Your task to perform on an android device: Open Chrome and go to settings Image 0: 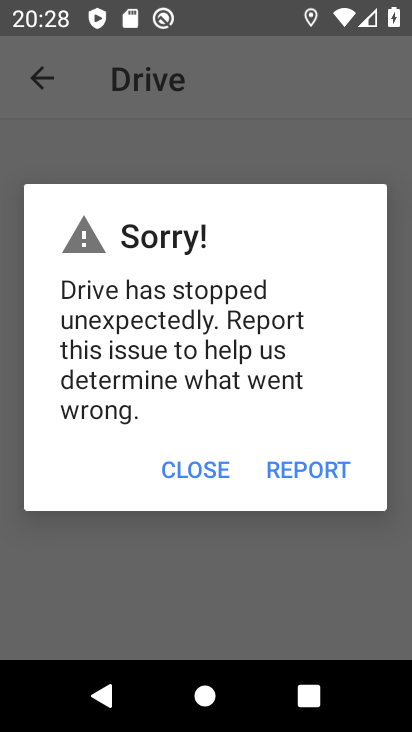
Step 0: press home button
Your task to perform on an android device: Open Chrome and go to settings Image 1: 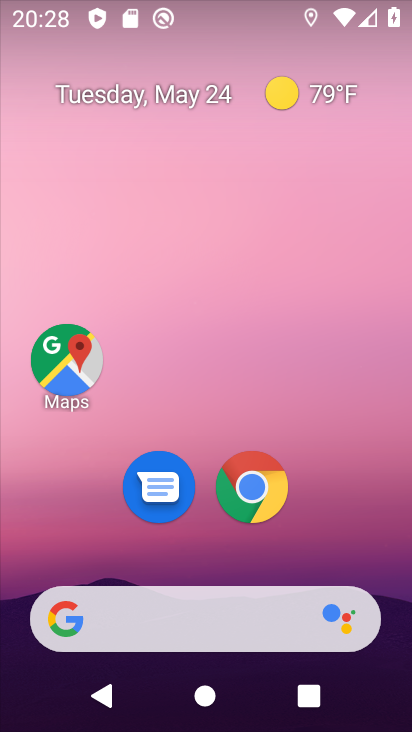
Step 1: click (249, 487)
Your task to perform on an android device: Open Chrome and go to settings Image 2: 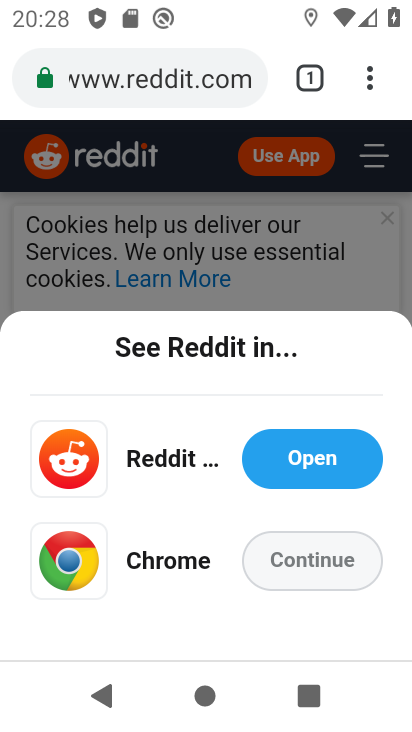
Step 2: task complete